Your task to perform on an android device: Go to network settings Image 0: 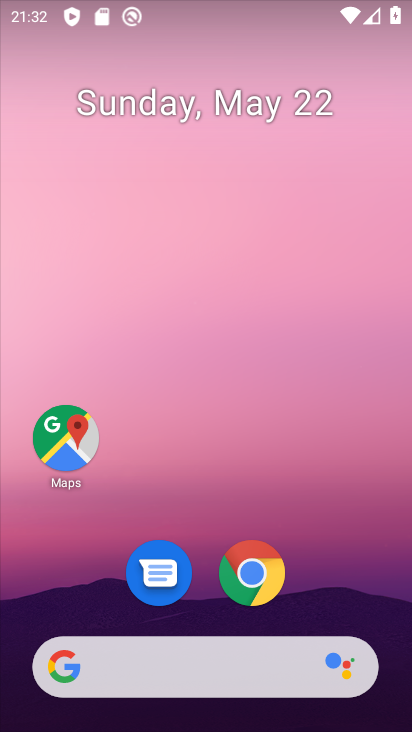
Step 0: drag from (351, 540) to (353, 15)
Your task to perform on an android device: Go to network settings Image 1: 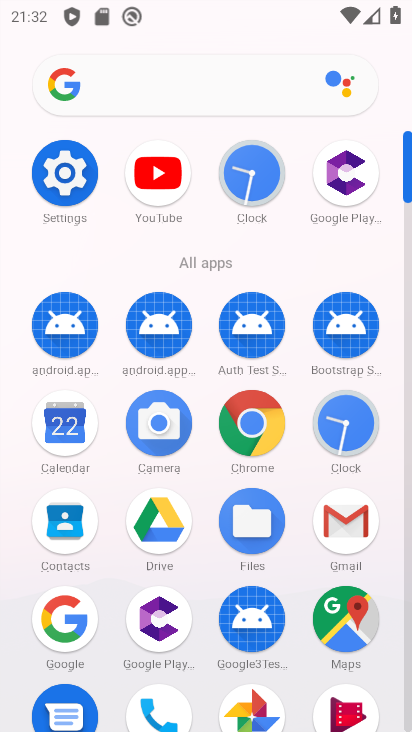
Step 1: click (75, 177)
Your task to perform on an android device: Go to network settings Image 2: 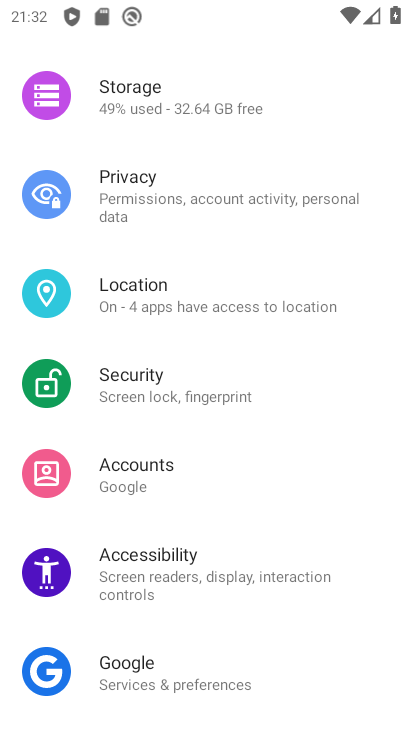
Step 2: drag from (229, 78) to (0, 580)
Your task to perform on an android device: Go to network settings Image 3: 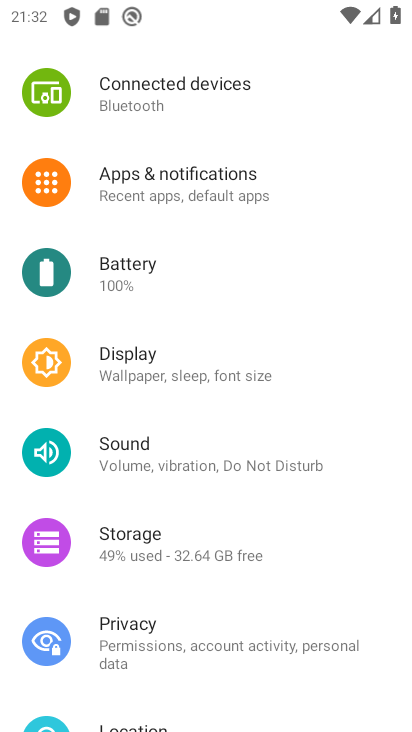
Step 3: drag from (205, 173) to (90, 725)
Your task to perform on an android device: Go to network settings Image 4: 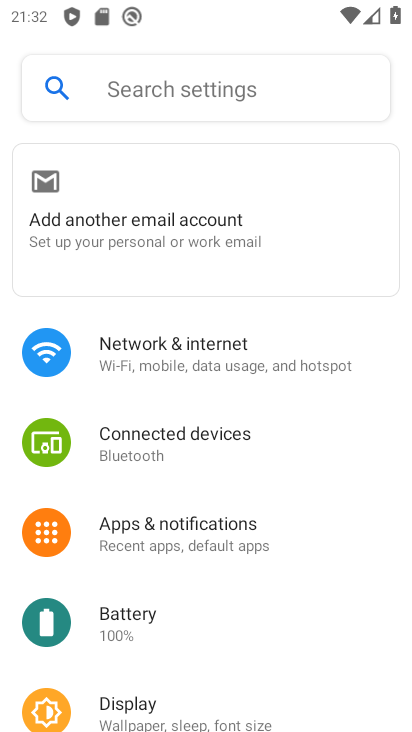
Step 4: click (175, 356)
Your task to perform on an android device: Go to network settings Image 5: 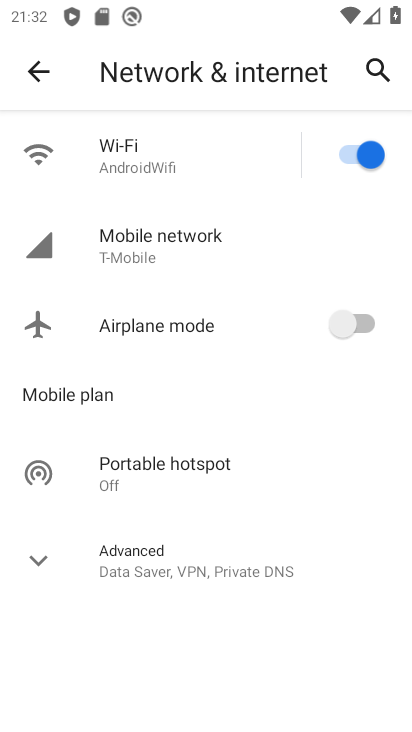
Step 5: task complete